Your task to perform on an android device: Go to battery settings Image 0: 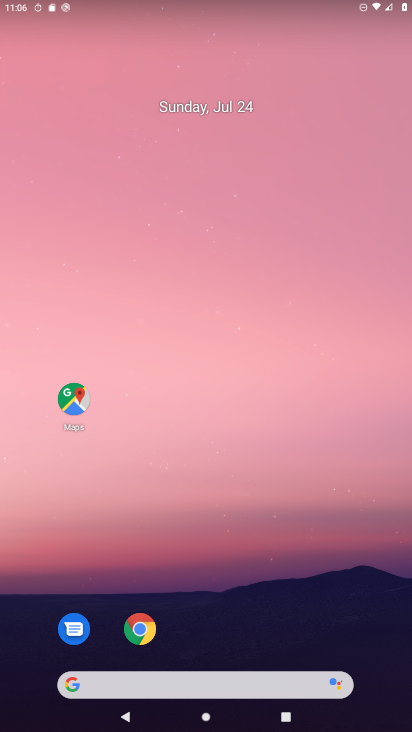
Step 0: drag from (181, 697) to (227, 187)
Your task to perform on an android device: Go to battery settings Image 1: 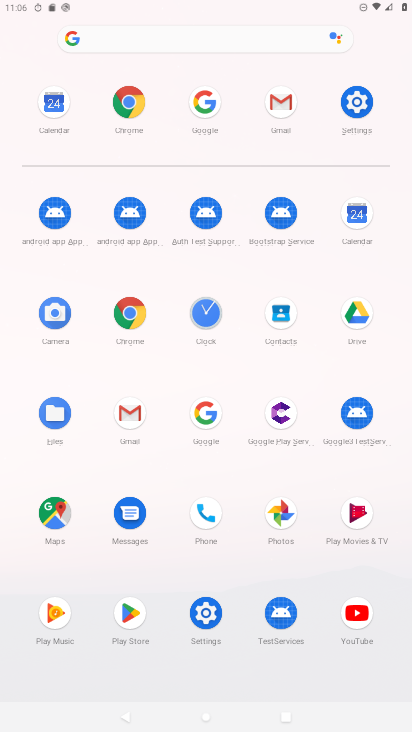
Step 1: click (361, 115)
Your task to perform on an android device: Go to battery settings Image 2: 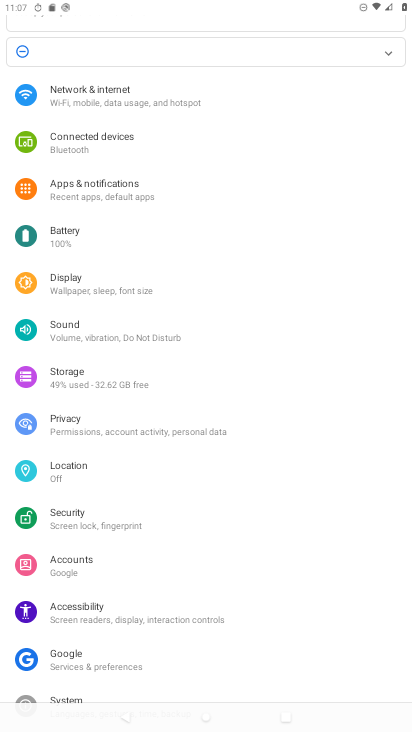
Step 2: click (70, 231)
Your task to perform on an android device: Go to battery settings Image 3: 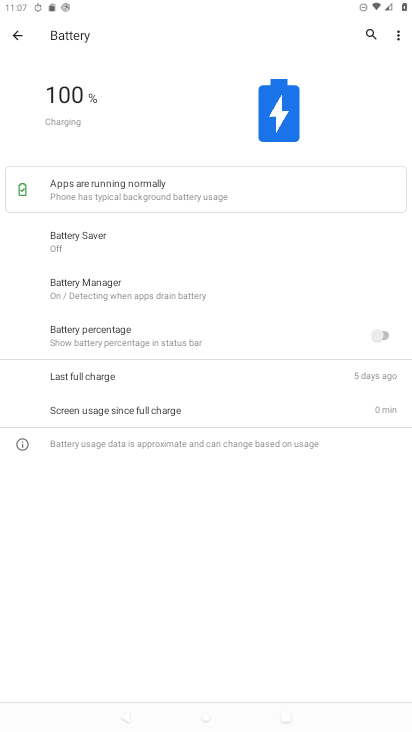
Step 3: task complete